Your task to perform on an android device: Open the stopwatch Image 0: 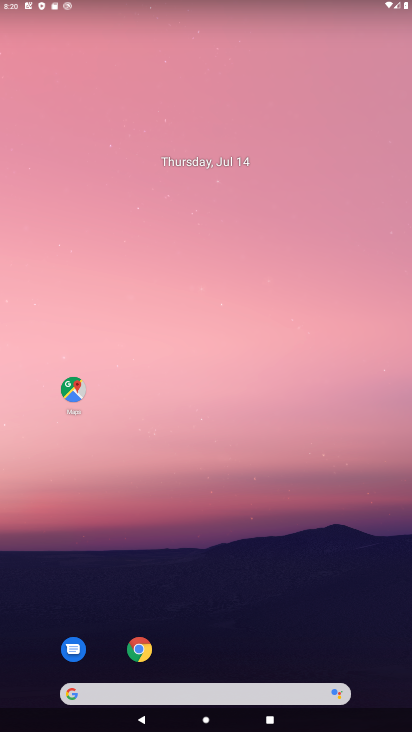
Step 0: drag from (230, 710) to (59, 29)
Your task to perform on an android device: Open the stopwatch Image 1: 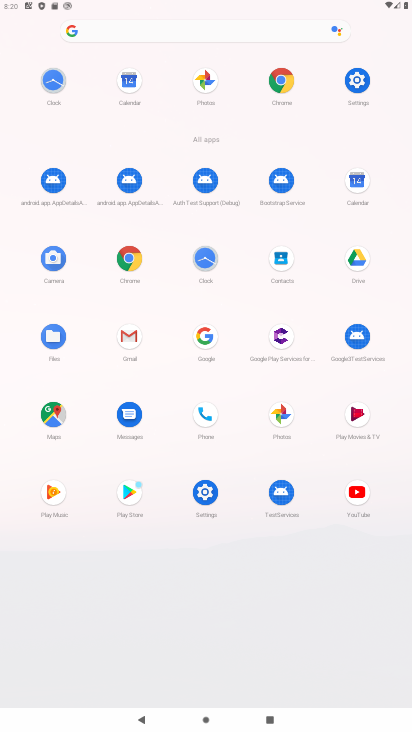
Step 1: click (202, 260)
Your task to perform on an android device: Open the stopwatch Image 2: 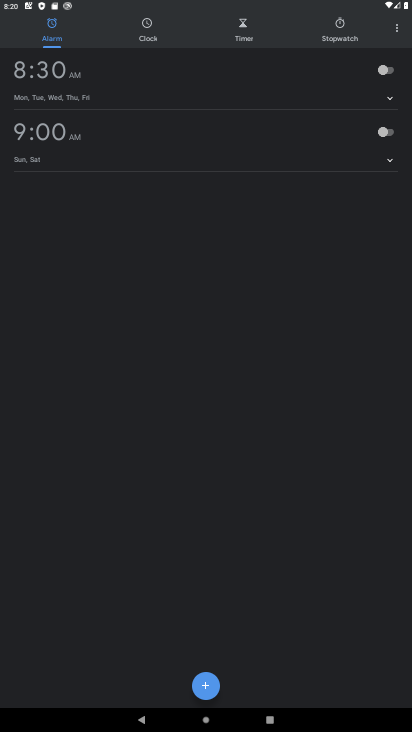
Step 2: click (337, 33)
Your task to perform on an android device: Open the stopwatch Image 3: 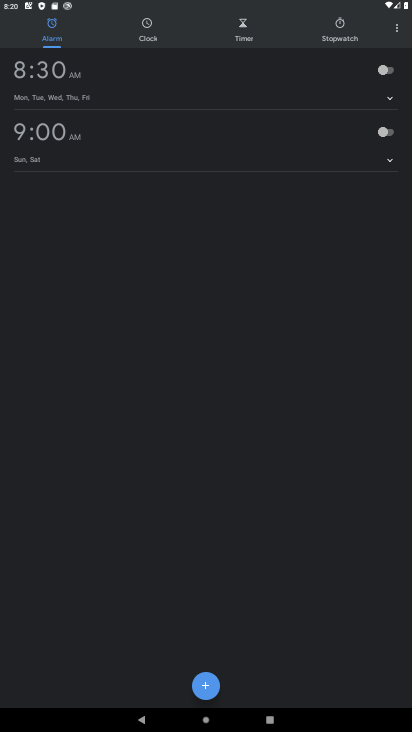
Step 3: click (337, 33)
Your task to perform on an android device: Open the stopwatch Image 4: 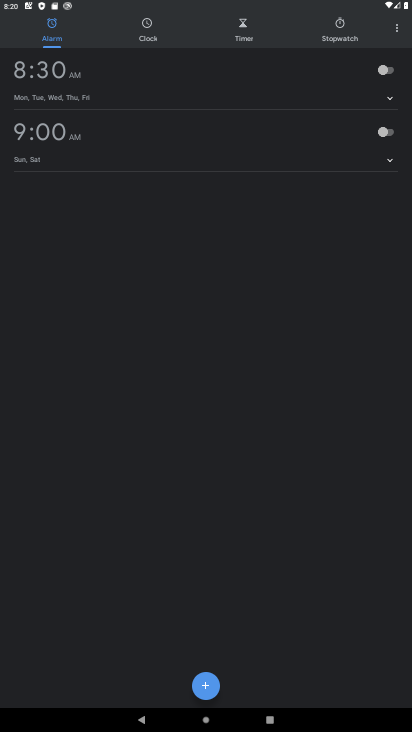
Step 4: click (337, 33)
Your task to perform on an android device: Open the stopwatch Image 5: 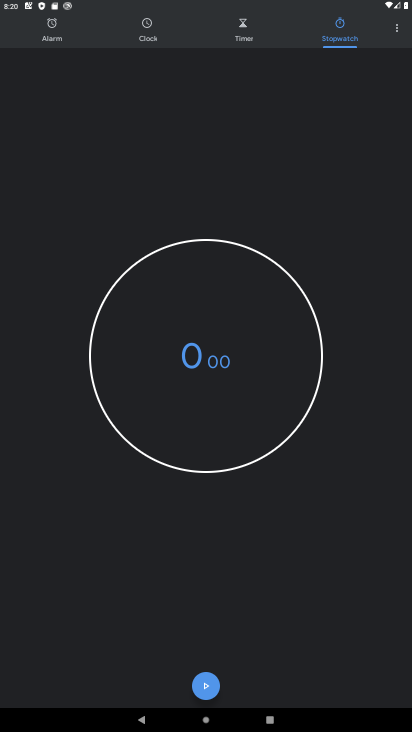
Step 5: task complete